Your task to perform on an android device: Search for the best coffee tables on Crate & Barrel Image 0: 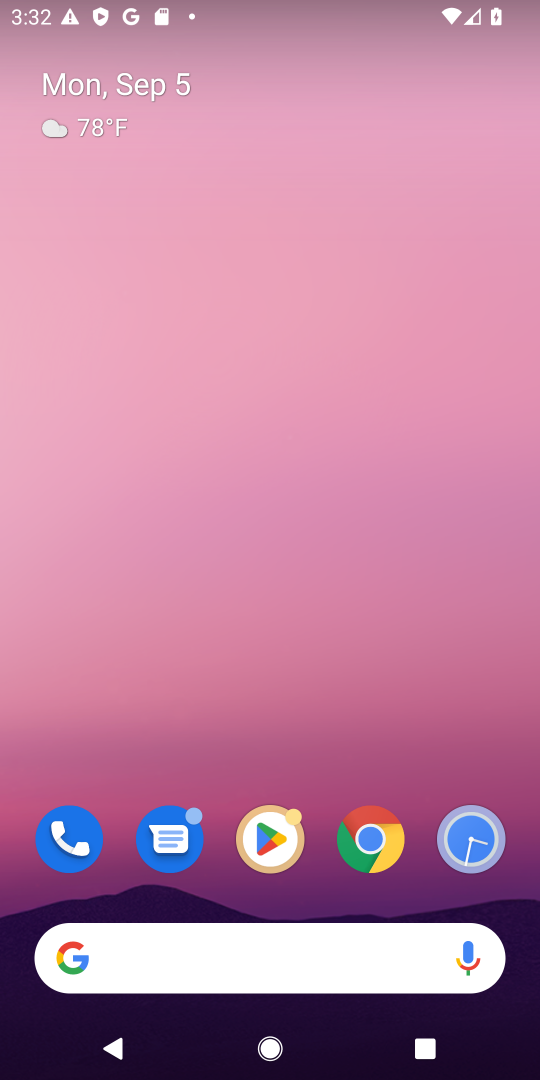
Step 0: click (400, 945)
Your task to perform on an android device: Search for the best coffee tables on Crate & Barrel Image 1: 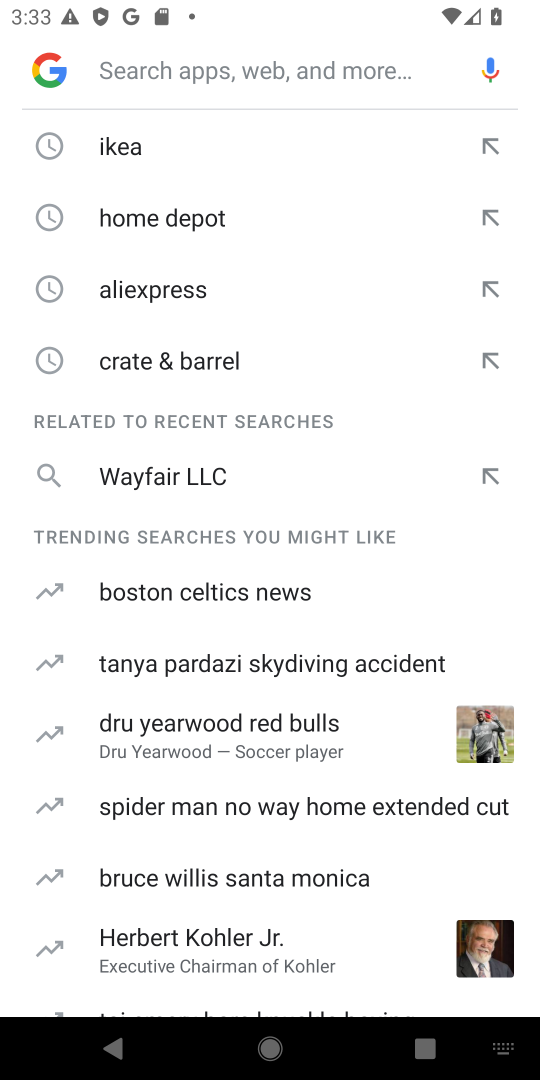
Step 1: click (225, 363)
Your task to perform on an android device: Search for the best coffee tables on Crate & Barrel Image 2: 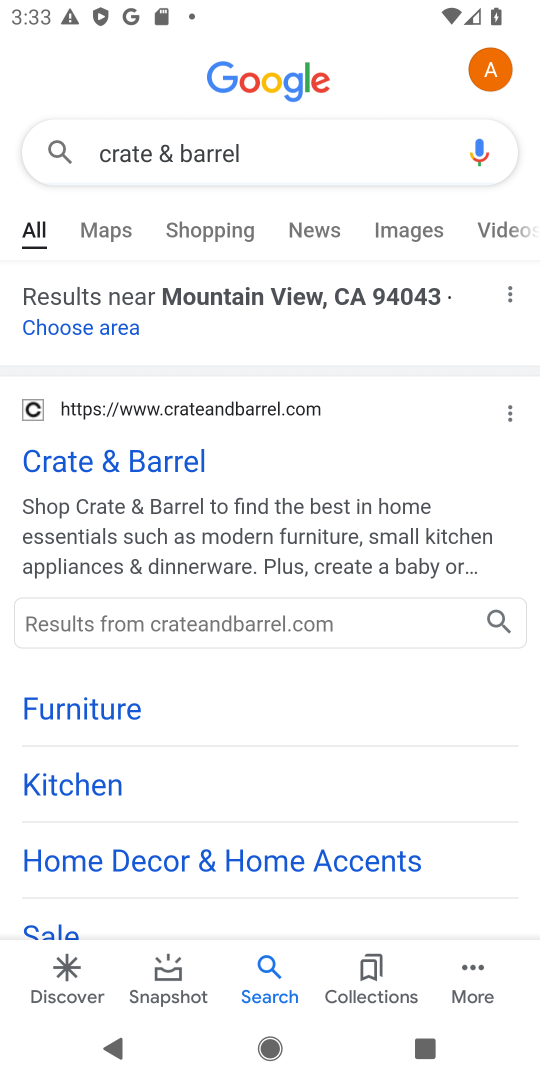
Step 2: click (163, 448)
Your task to perform on an android device: Search for the best coffee tables on Crate & Barrel Image 3: 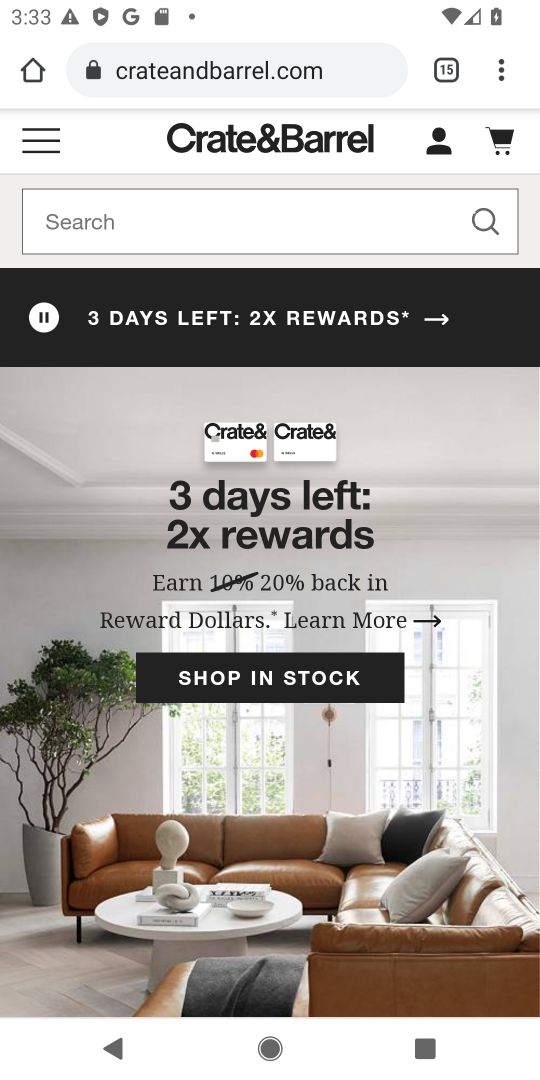
Step 3: click (130, 232)
Your task to perform on an android device: Search for the best coffee tables on Crate & Barrel Image 4: 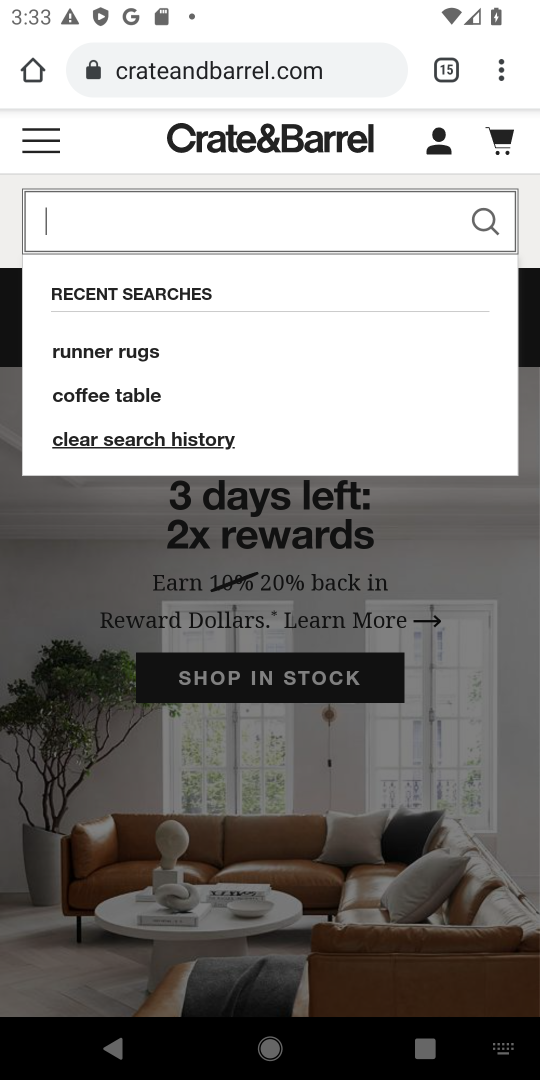
Step 4: click (121, 390)
Your task to perform on an android device: Search for the best coffee tables on Crate & Barrel Image 5: 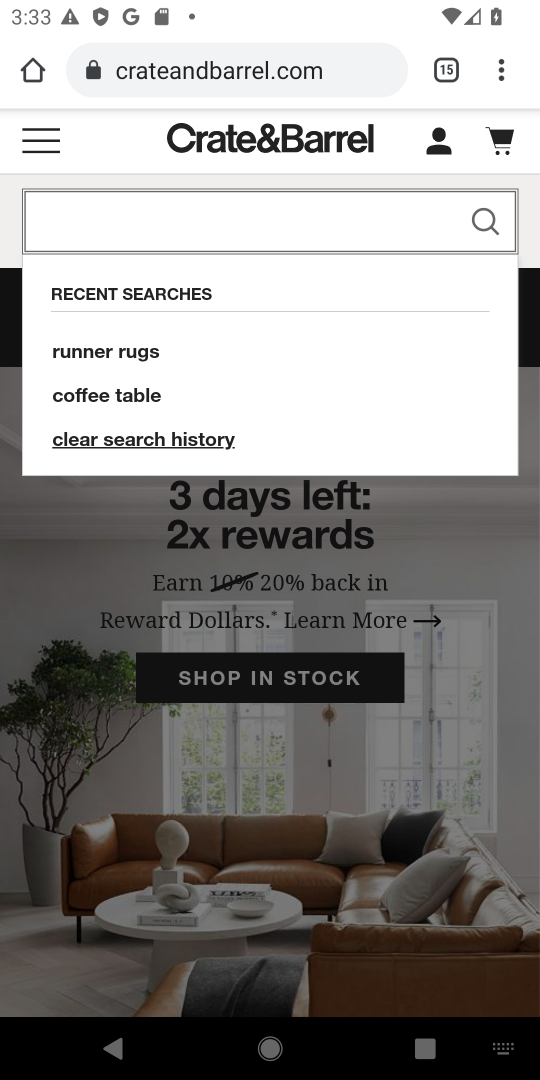
Step 5: click (121, 390)
Your task to perform on an android device: Search for the best coffee tables on Crate & Barrel Image 6: 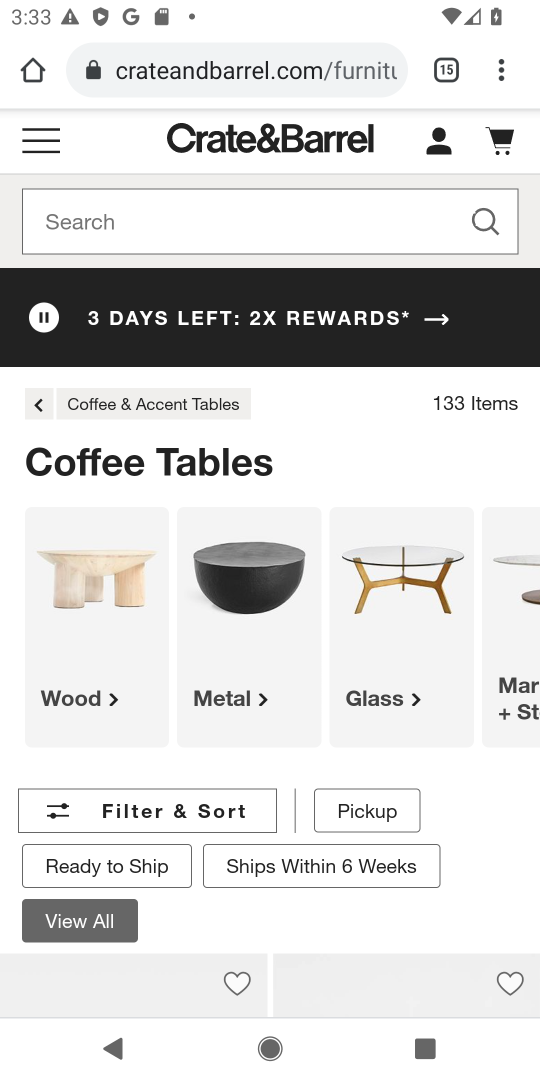
Step 6: click (144, 802)
Your task to perform on an android device: Search for the best coffee tables on Crate & Barrel Image 7: 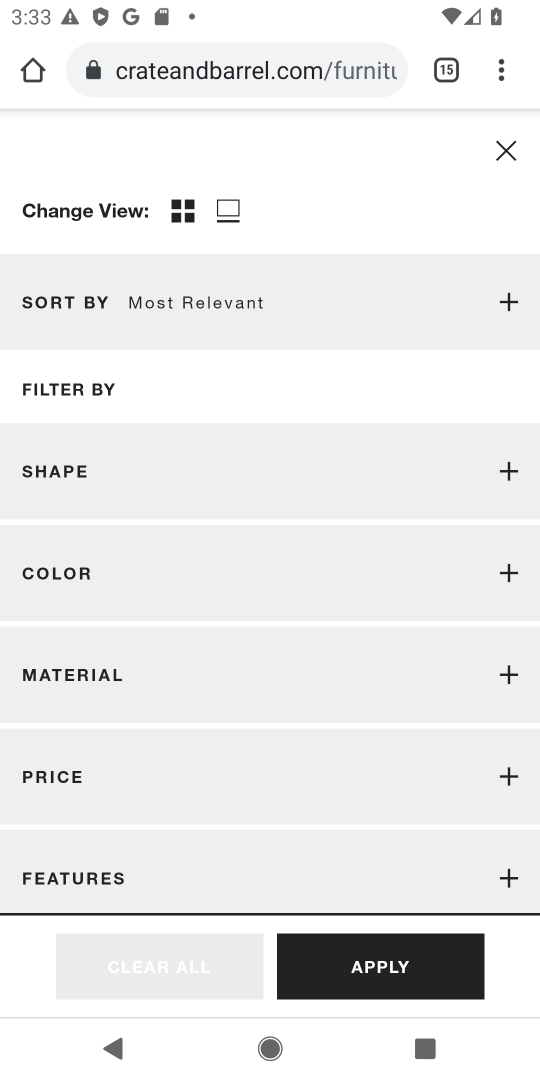
Step 7: click (504, 303)
Your task to perform on an android device: Search for the best coffee tables on Crate & Barrel Image 8: 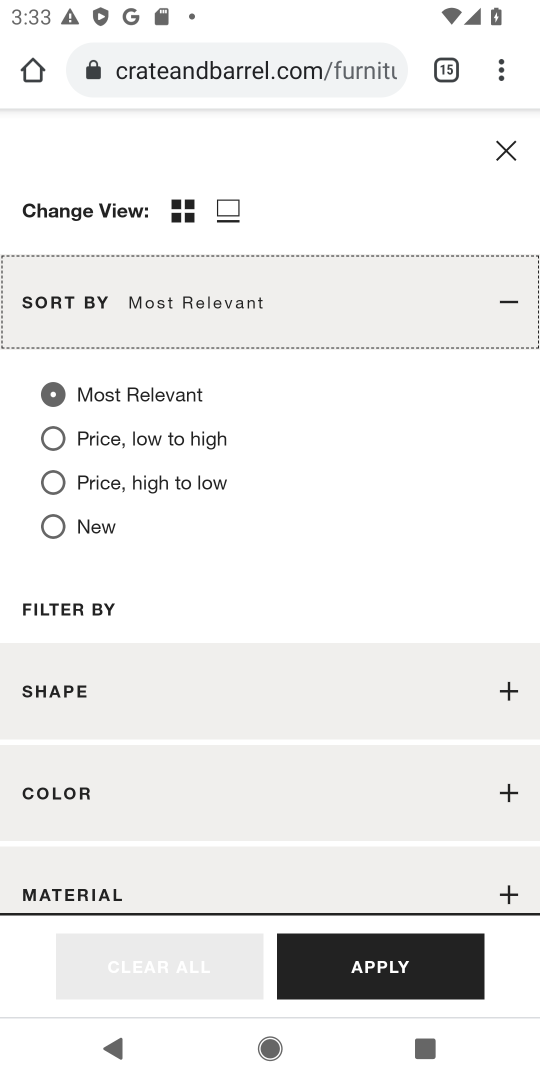
Step 8: click (145, 389)
Your task to perform on an android device: Search for the best coffee tables on Crate & Barrel Image 9: 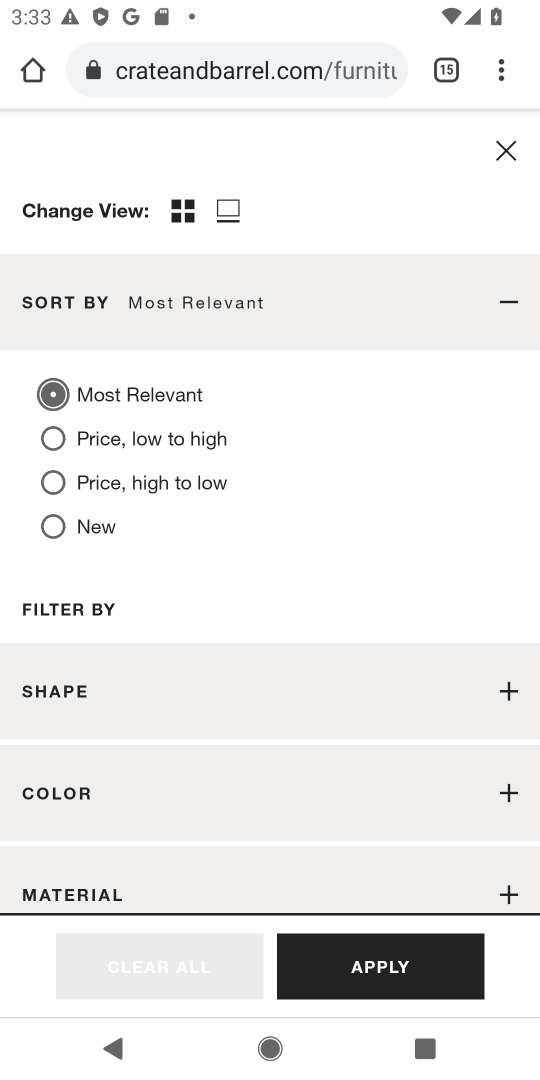
Step 9: click (400, 951)
Your task to perform on an android device: Search for the best coffee tables on Crate & Barrel Image 10: 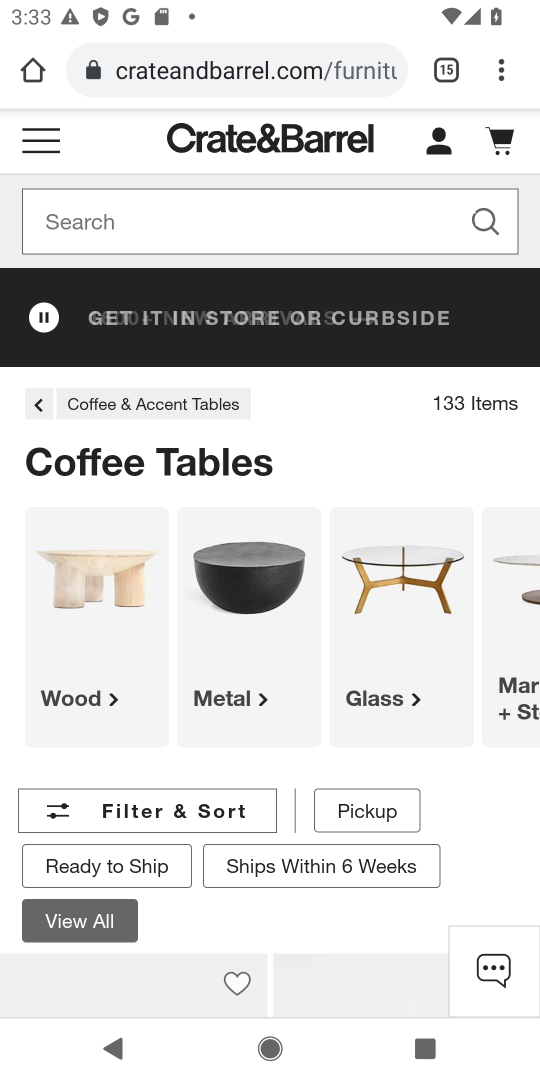
Step 10: drag from (331, 508) to (393, 172)
Your task to perform on an android device: Search for the best coffee tables on Crate & Barrel Image 11: 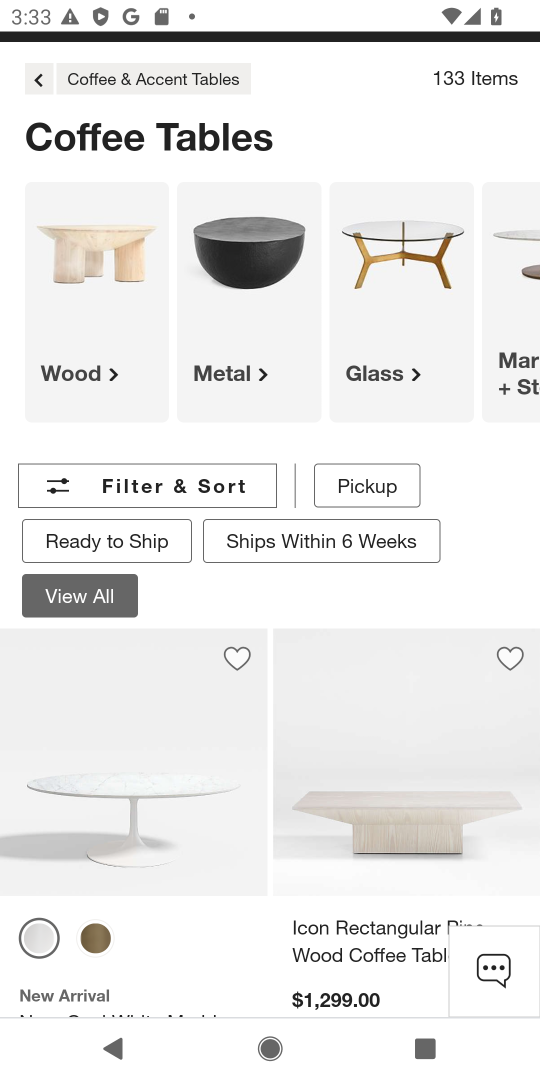
Step 11: click (306, 450)
Your task to perform on an android device: Search for the best coffee tables on Crate & Barrel Image 12: 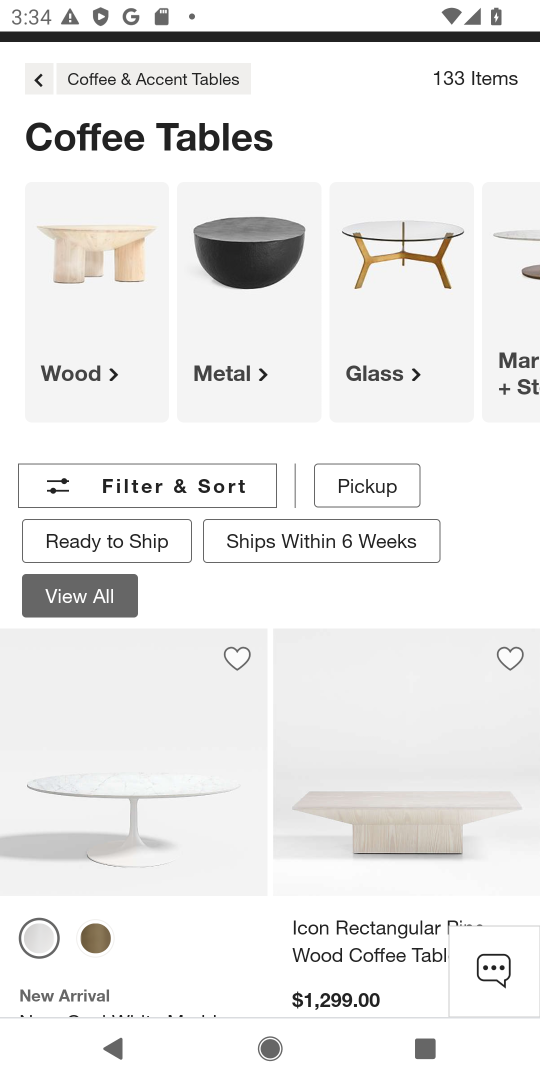
Step 12: drag from (437, 591) to (456, 425)
Your task to perform on an android device: Search for the best coffee tables on Crate & Barrel Image 13: 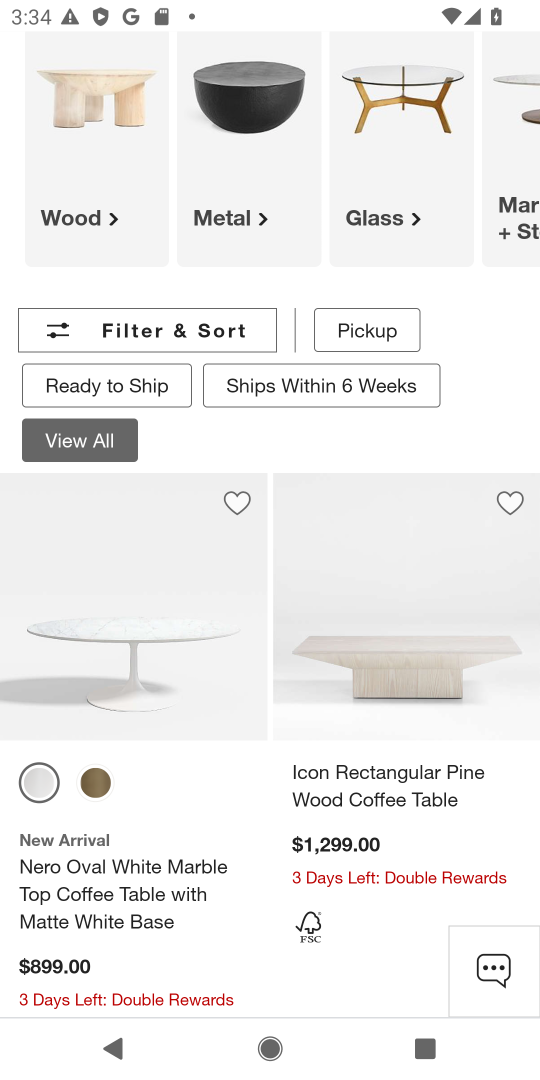
Step 13: drag from (472, 447) to (482, 63)
Your task to perform on an android device: Search for the best coffee tables on Crate & Barrel Image 14: 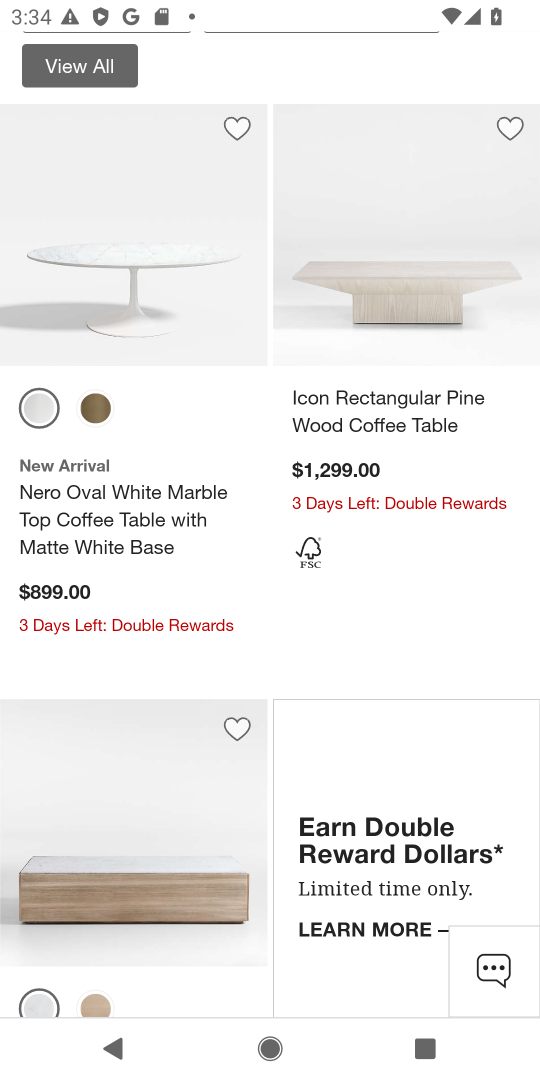
Step 14: click (370, 644)
Your task to perform on an android device: Search for the best coffee tables on Crate & Barrel Image 15: 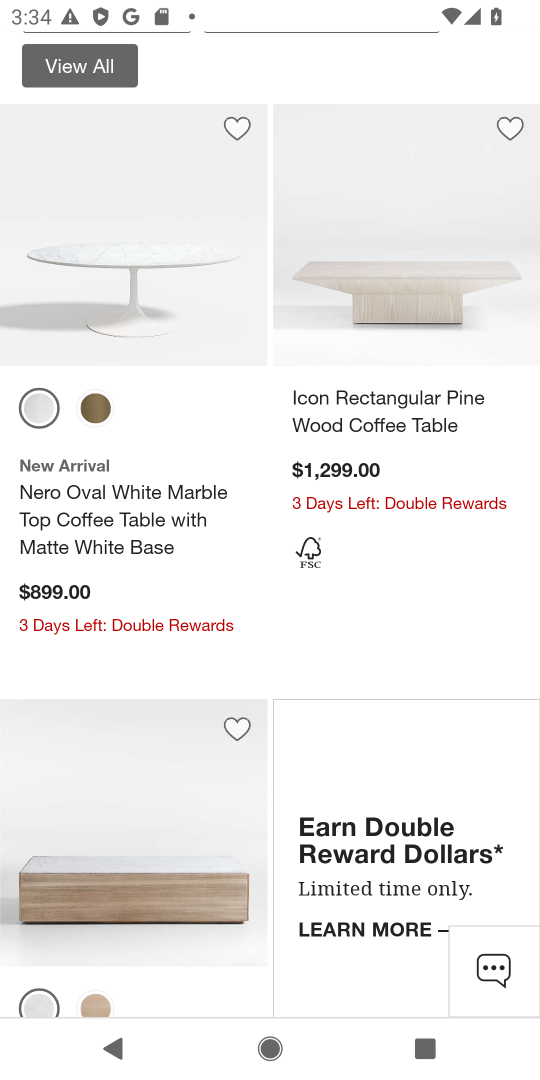
Step 15: drag from (370, 533) to (453, 401)
Your task to perform on an android device: Search for the best coffee tables on Crate & Barrel Image 16: 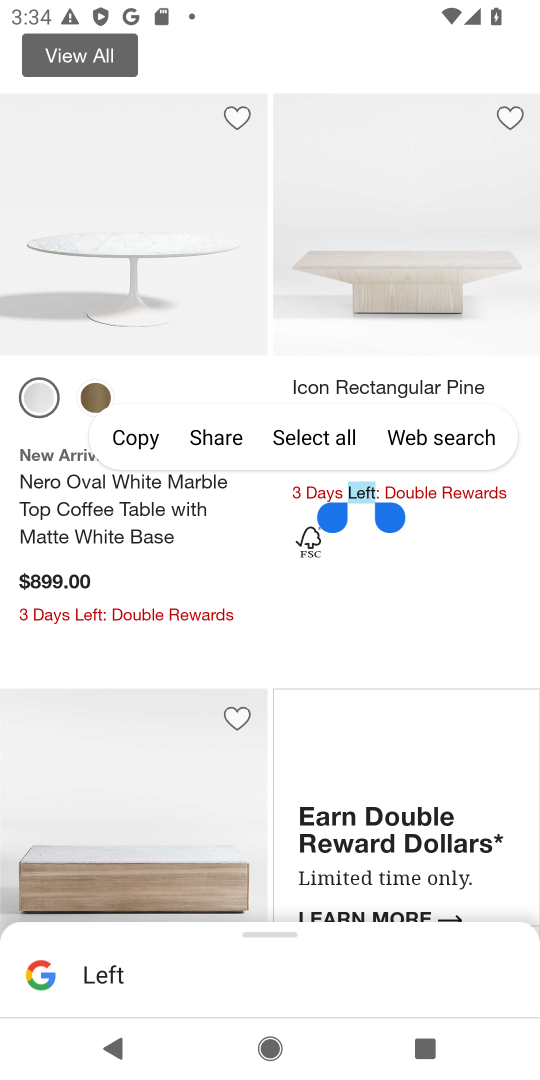
Step 16: click (344, 653)
Your task to perform on an android device: Search for the best coffee tables on Crate & Barrel Image 17: 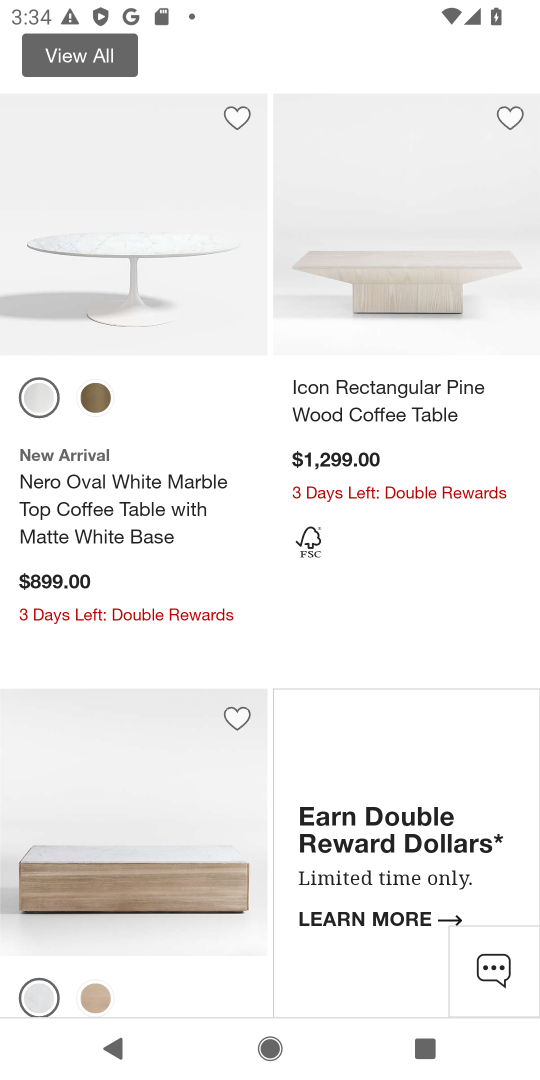
Step 17: click (334, 620)
Your task to perform on an android device: Search for the best coffee tables on Crate & Barrel Image 18: 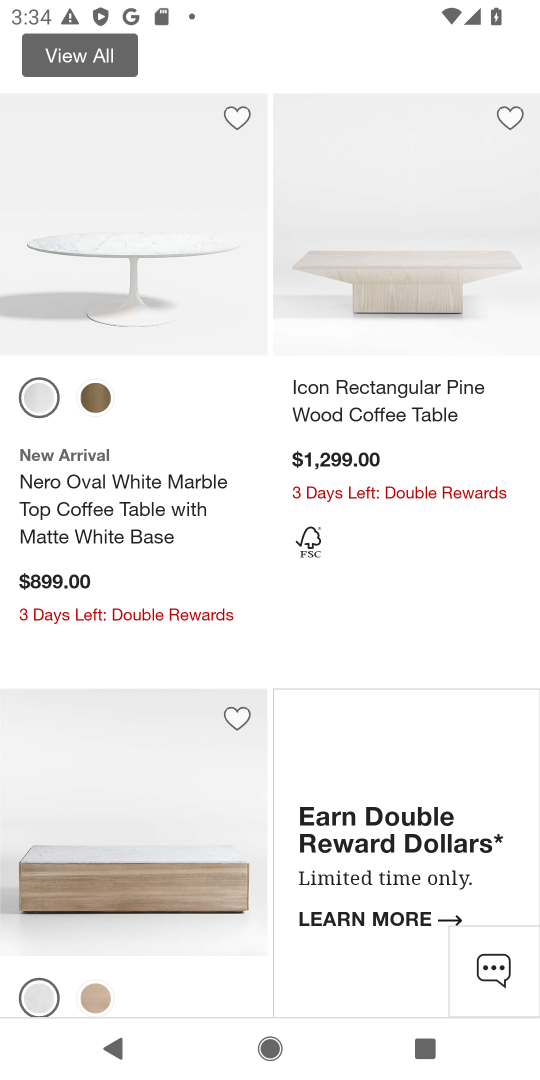
Step 18: task complete